Your task to perform on an android device: delete a single message in the gmail app Image 0: 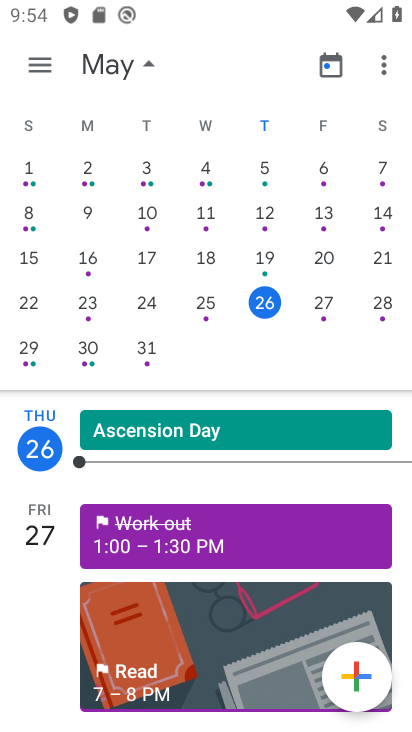
Step 0: press home button
Your task to perform on an android device: delete a single message in the gmail app Image 1: 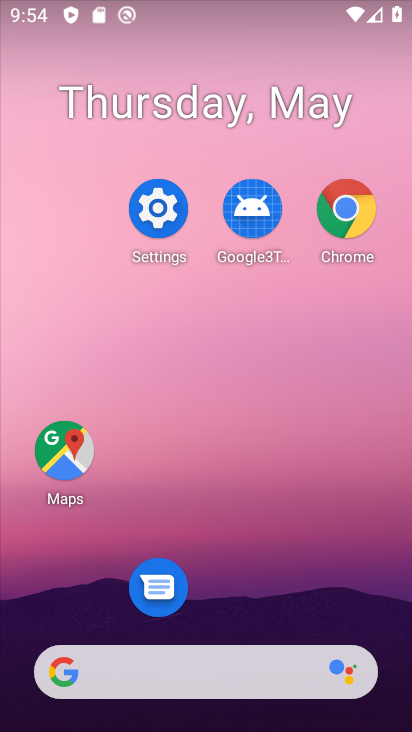
Step 1: drag from (223, 584) to (197, 9)
Your task to perform on an android device: delete a single message in the gmail app Image 2: 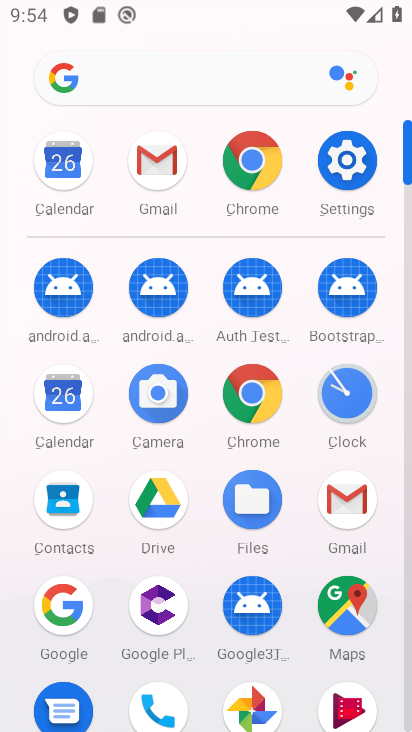
Step 2: click (154, 198)
Your task to perform on an android device: delete a single message in the gmail app Image 3: 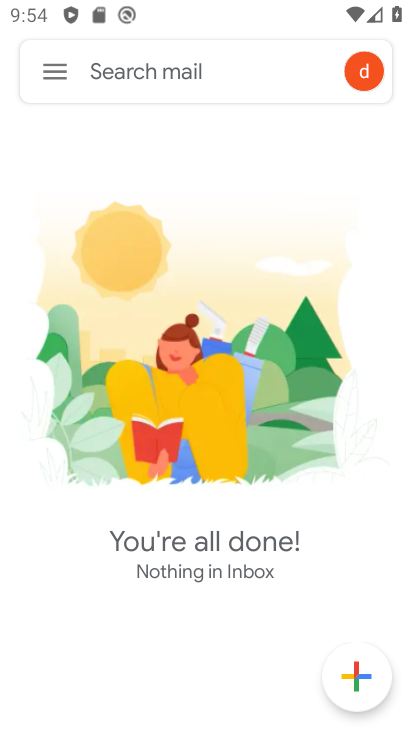
Step 3: click (52, 82)
Your task to perform on an android device: delete a single message in the gmail app Image 4: 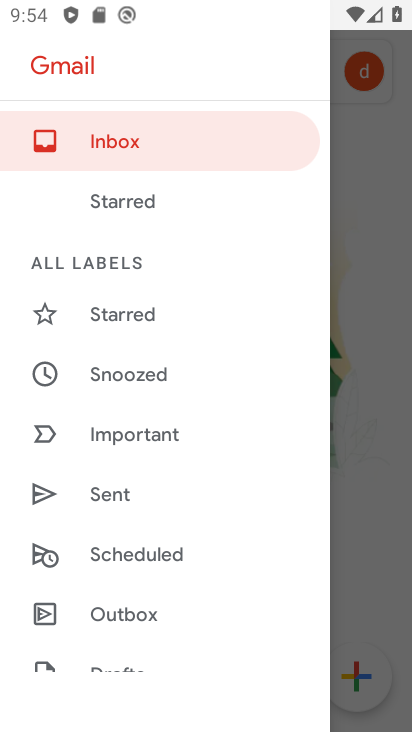
Step 4: drag from (145, 565) to (120, 274)
Your task to perform on an android device: delete a single message in the gmail app Image 5: 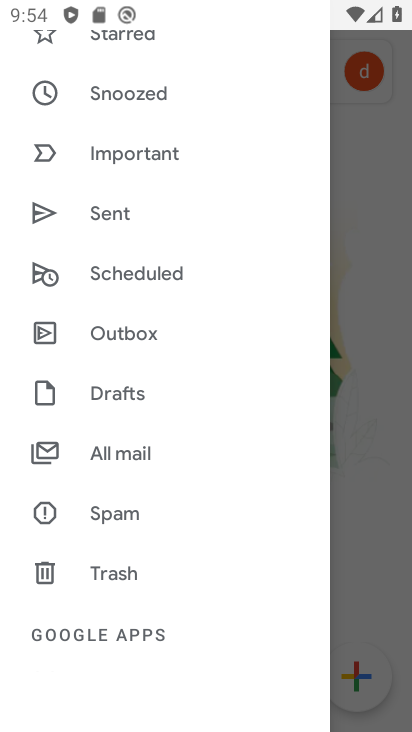
Step 5: click (139, 455)
Your task to perform on an android device: delete a single message in the gmail app Image 6: 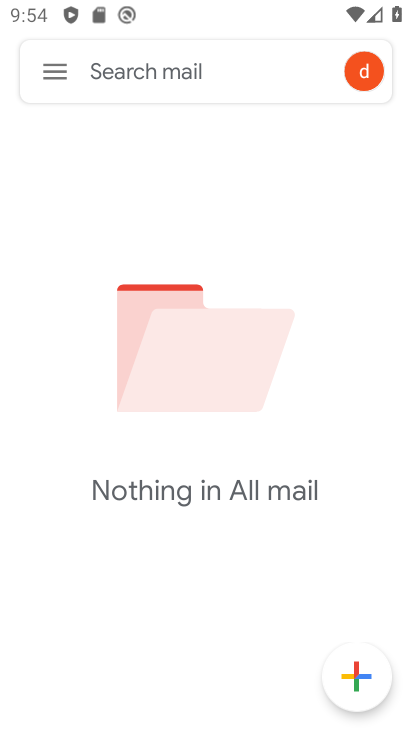
Step 6: task complete